Your task to perform on an android device: turn off wifi Image 0: 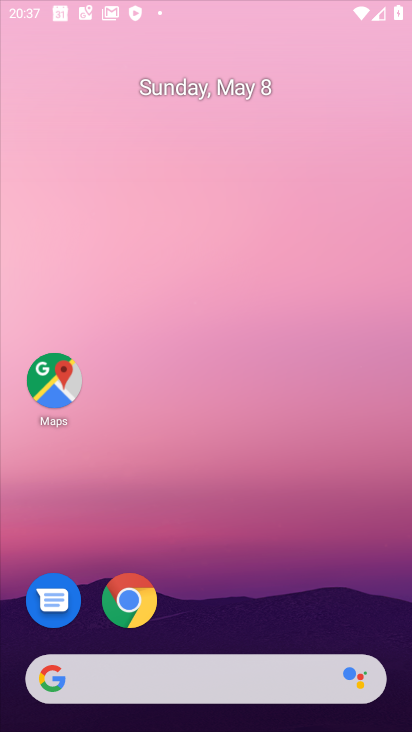
Step 0: drag from (314, 474) to (354, 111)
Your task to perform on an android device: turn off wifi Image 1: 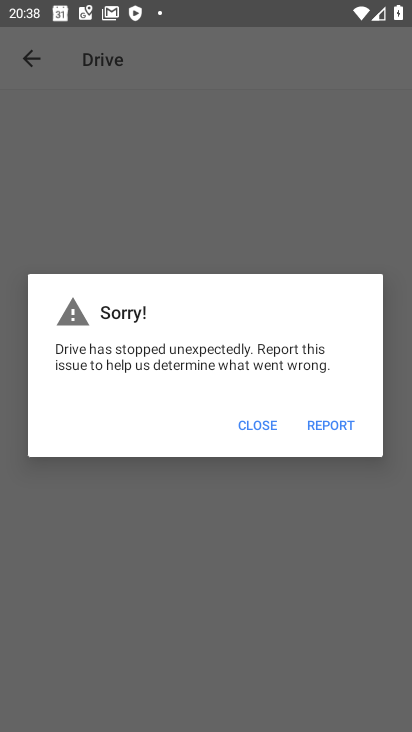
Step 1: press home button
Your task to perform on an android device: turn off wifi Image 2: 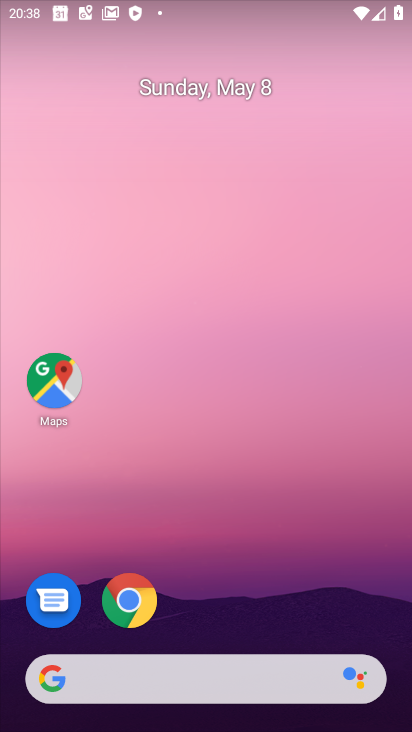
Step 2: drag from (241, 718) to (288, 169)
Your task to perform on an android device: turn off wifi Image 3: 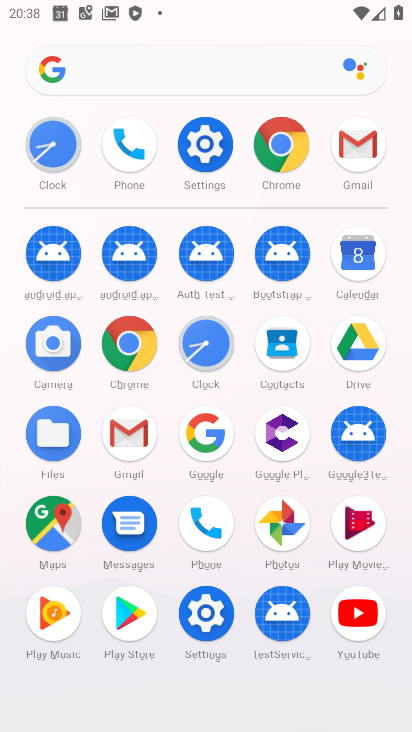
Step 3: click (191, 148)
Your task to perform on an android device: turn off wifi Image 4: 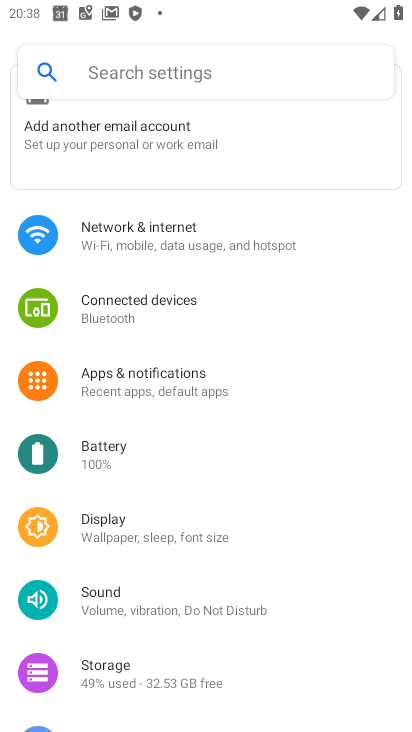
Step 4: click (152, 231)
Your task to perform on an android device: turn off wifi Image 5: 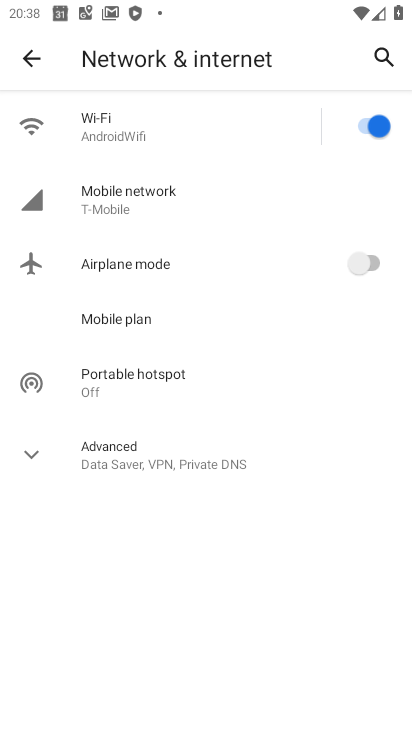
Step 5: click (364, 132)
Your task to perform on an android device: turn off wifi Image 6: 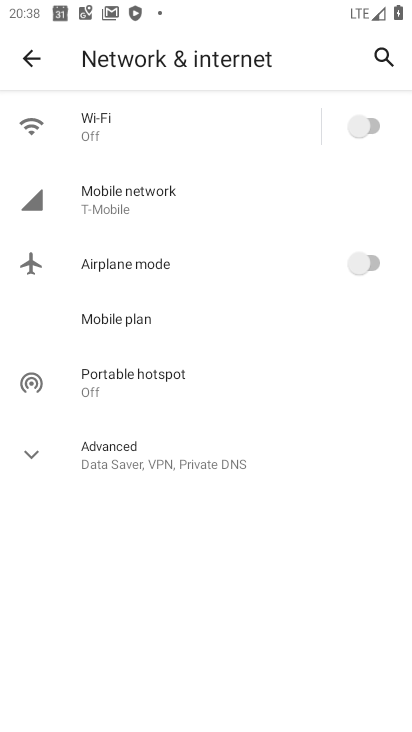
Step 6: task complete